Your task to perform on an android device: Go to accessibility settings Image 0: 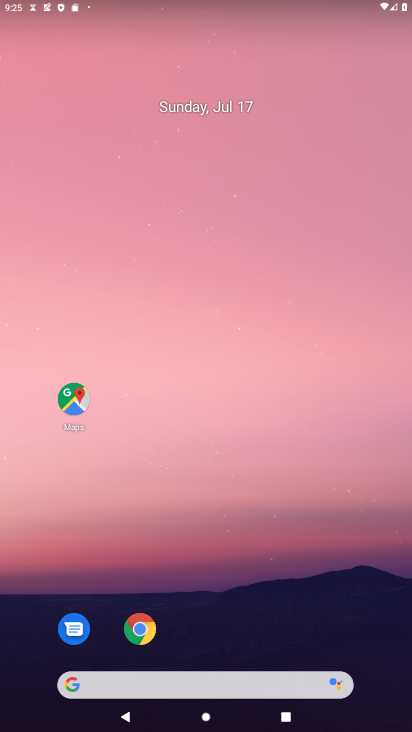
Step 0: drag from (234, 694) to (258, 155)
Your task to perform on an android device: Go to accessibility settings Image 1: 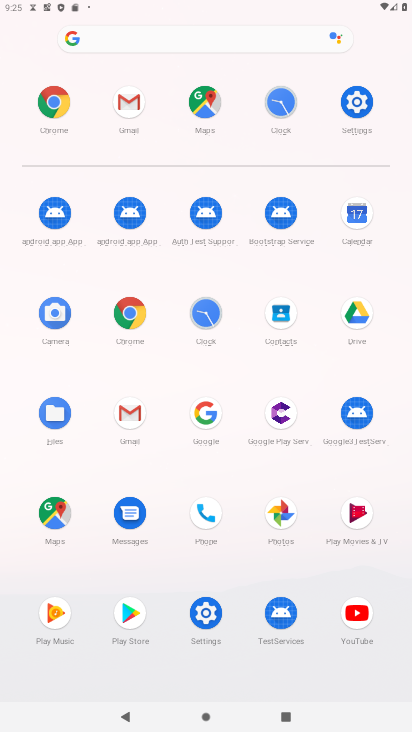
Step 1: click (362, 99)
Your task to perform on an android device: Go to accessibility settings Image 2: 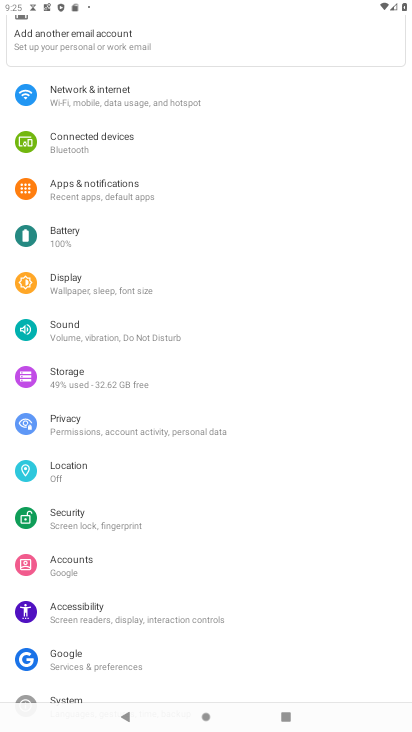
Step 2: click (70, 608)
Your task to perform on an android device: Go to accessibility settings Image 3: 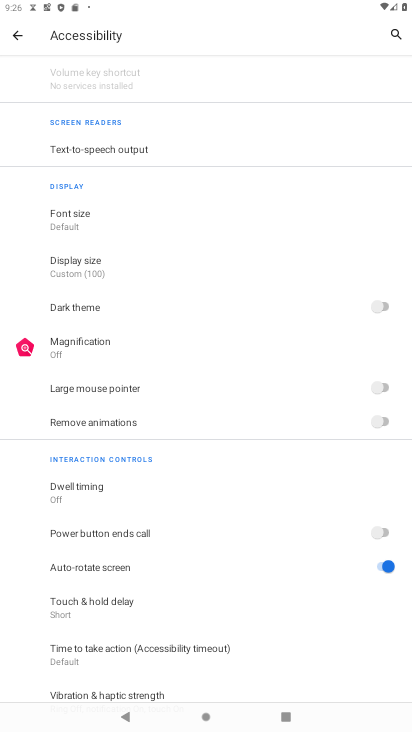
Step 3: task complete